Your task to perform on an android device: turn off sleep mode Image 0: 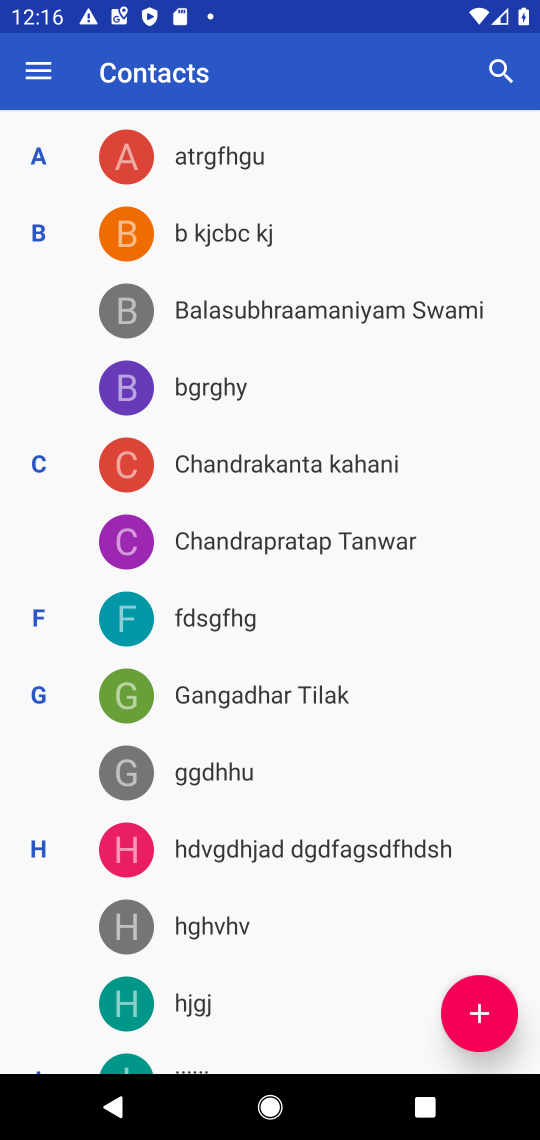
Step 0: press home button
Your task to perform on an android device: turn off sleep mode Image 1: 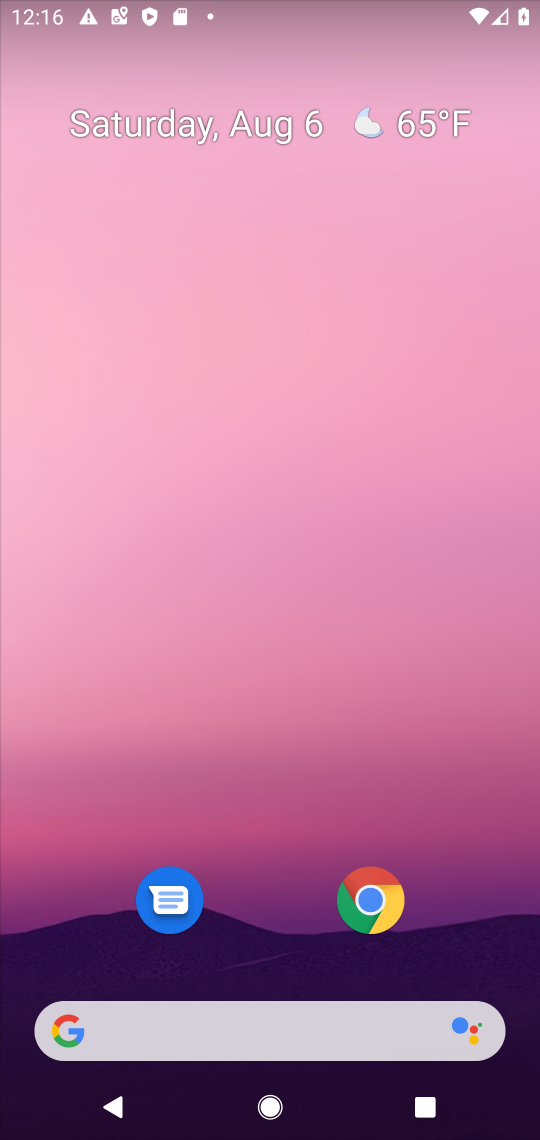
Step 1: drag from (263, 988) to (331, 85)
Your task to perform on an android device: turn off sleep mode Image 2: 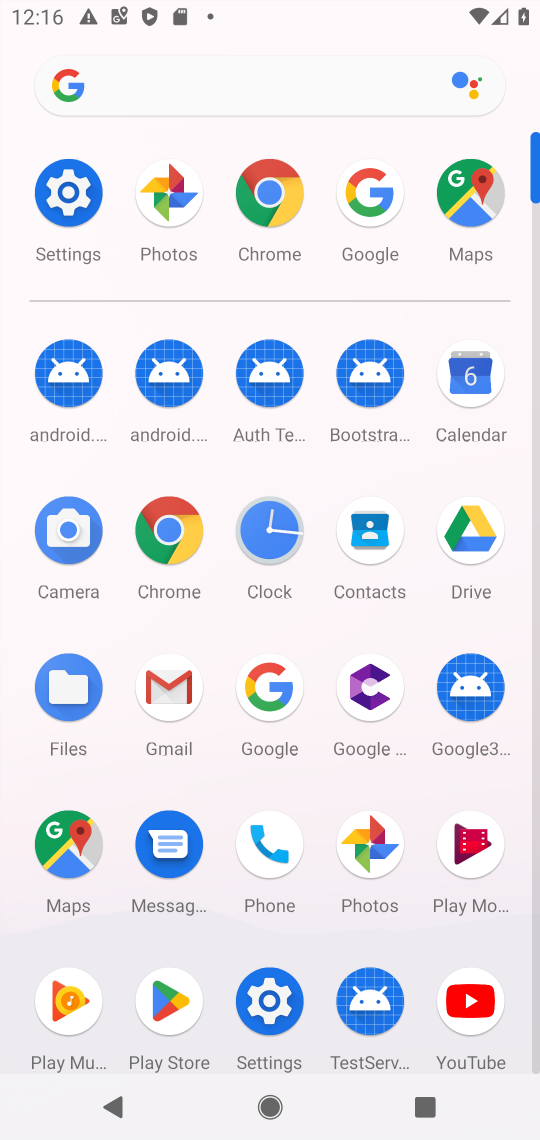
Step 2: click (68, 190)
Your task to perform on an android device: turn off sleep mode Image 3: 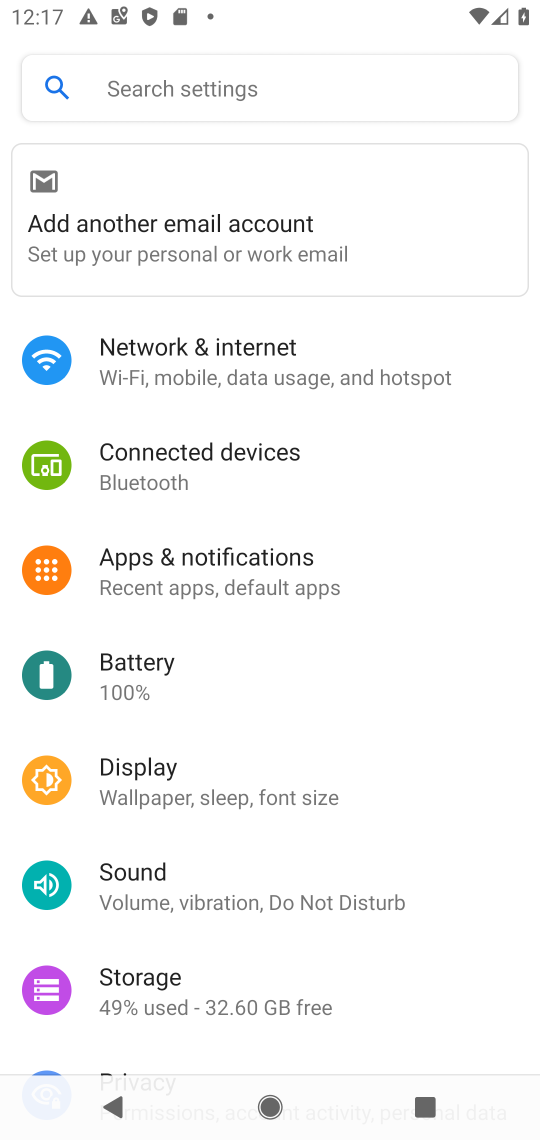
Step 3: task complete